Your task to perform on an android device: empty trash in google photos Image 0: 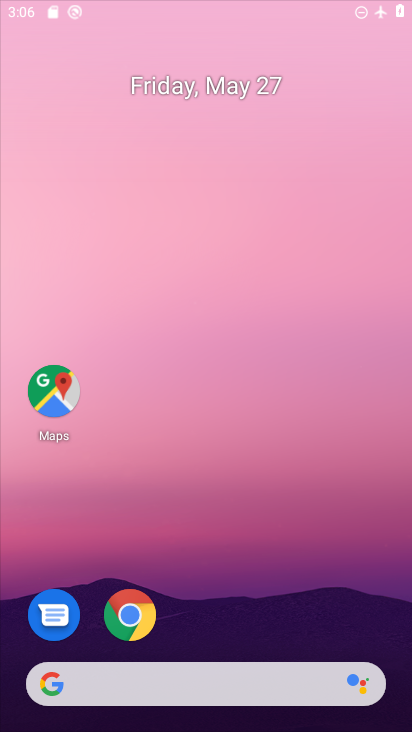
Step 0: drag from (260, 548) to (101, 8)
Your task to perform on an android device: empty trash in google photos Image 1: 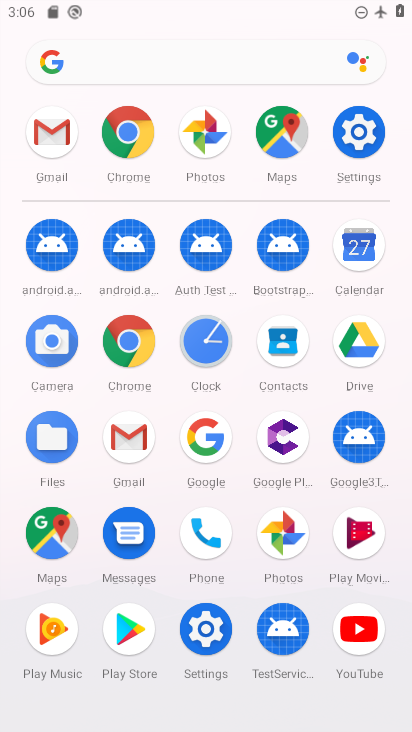
Step 1: click (286, 524)
Your task to perform on an android device: empty trash in google photos Image 2: 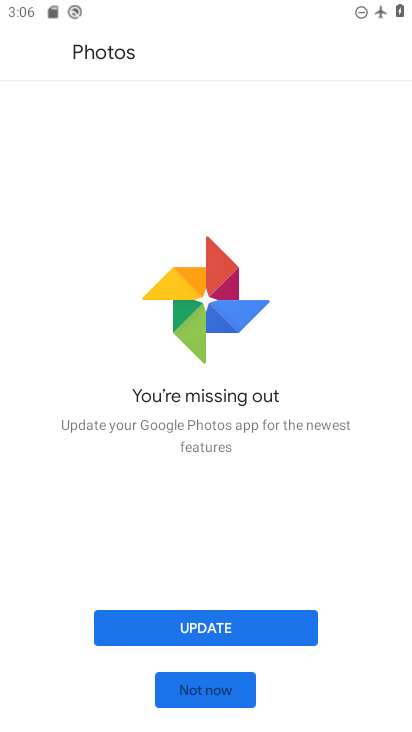
Step 2: click (279, 636)
Your task to perform on an android device: empty trash in google photos Image 3: 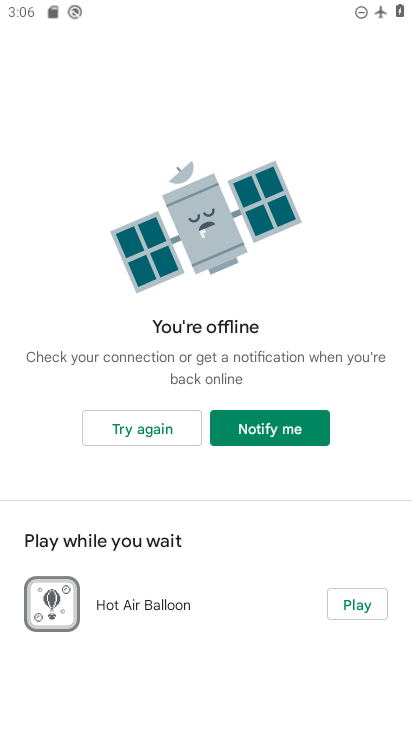
Step 3: task complete